Your task to perform on an android device: stop showing notifications on the lock screen Image 0: 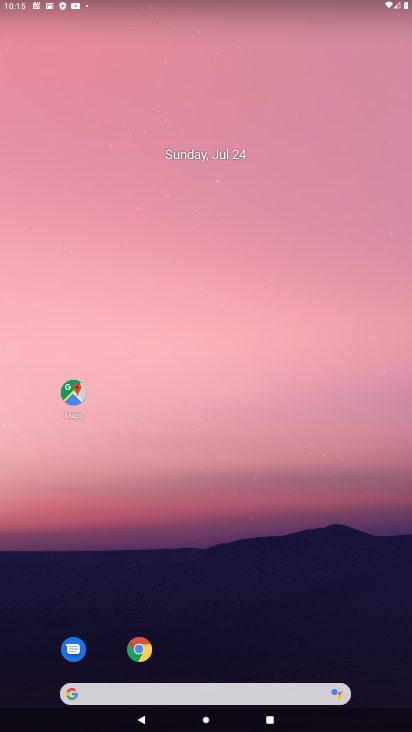
Step 0: drag from (246, 651) to (346, 36)
Your task to perform on an android device: stop showing notifications on the lock screen Image 1: 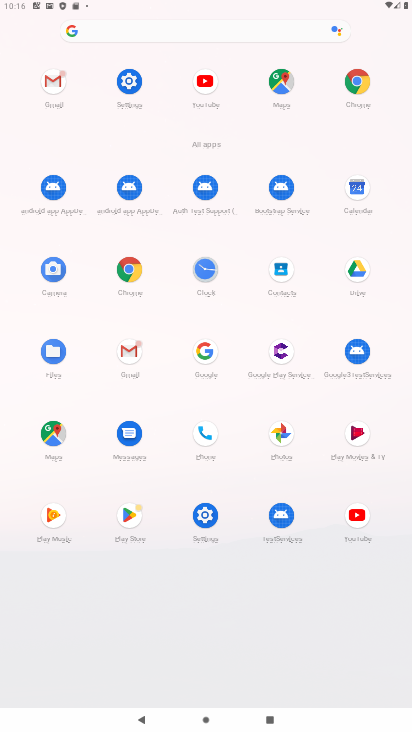
Step 1: click (121, 84)
Your task to perform on an android device: stop showing notifications on the lock screen Image 2: 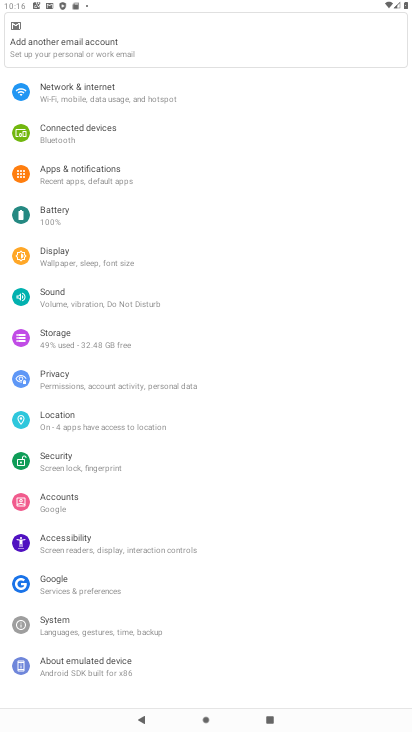
Step 2: click (86, 178)
Your task to perform on an android device: stop showing notifications on the lock screen Image 3: 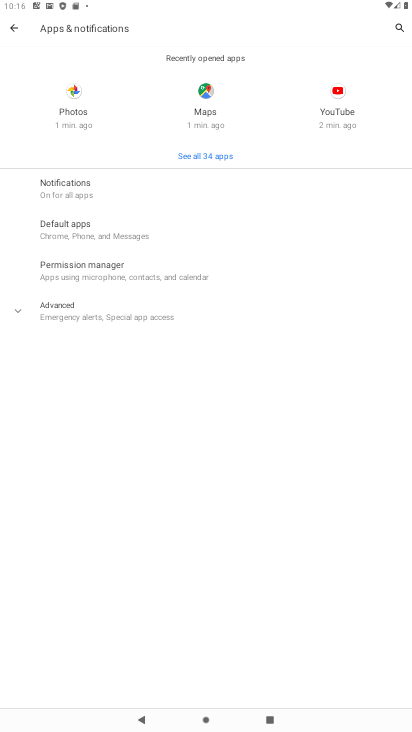
Step 3: click (72, 187)
Your task to perform on an android device: stop showing notifications on the lock screen Image 4: 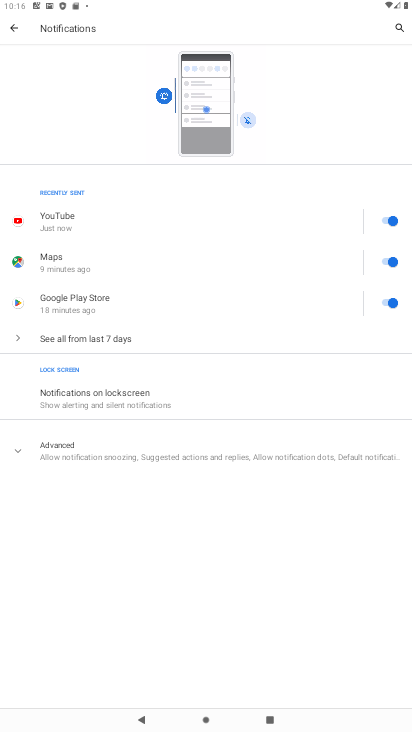
Step 4: click (62, 404)
Your task to perform on an android device: stop showing notifications on the lock screen Image 5: 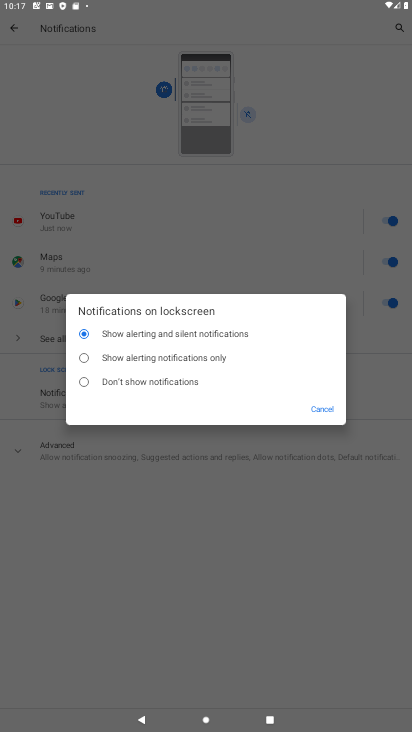
Step 5: click (117, 381)
Your task to perform on an android device: stop showing notifications on the lock screen Image 6: 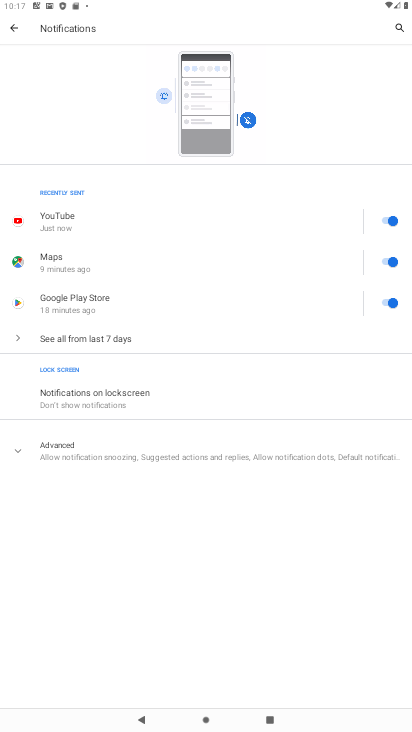
Step 6: task complete